Your task to perform on an android device: toggle sleep mode Image 0: 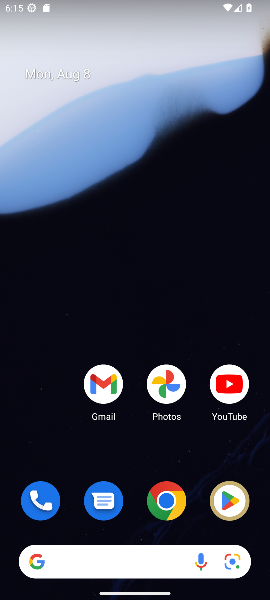
Step 0: drag from (126, 441) to (108, 56)
Your task to perform on an android device: toggle sleep mode Image 1: 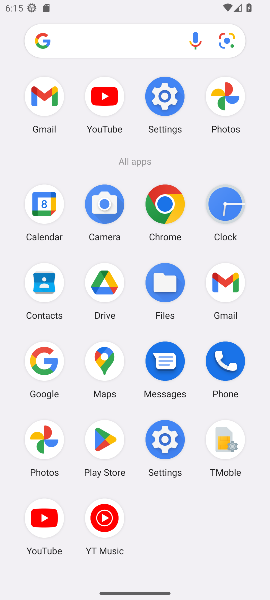
Step 1: click (173, 450)
Your task to perform on an android device: toggle sleep mode Image 2: 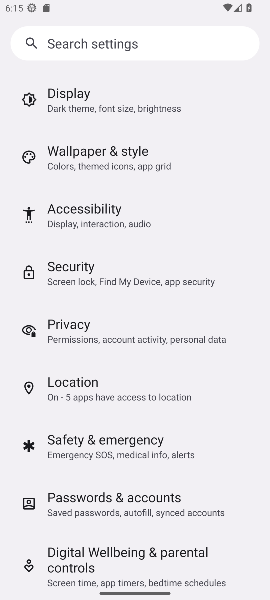
Step 2: click (139, 107)
Your task to perform on an android device: toggle sleep mode Image 3: 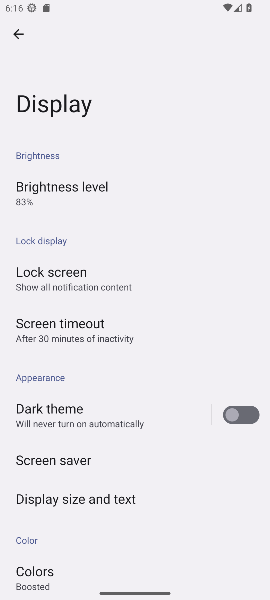
Step 3: click (119, 133)
Your task to perform on an android device: toggle sleep mode Image 4: 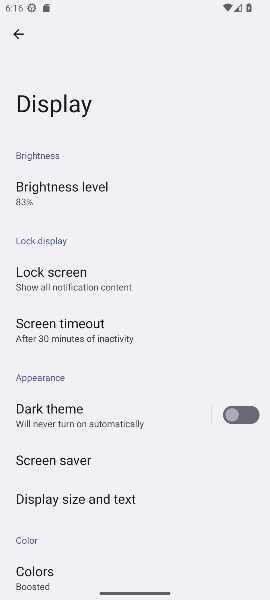
Step 4: task complete